Your task to perform on an android device: turn on location history Image 0: 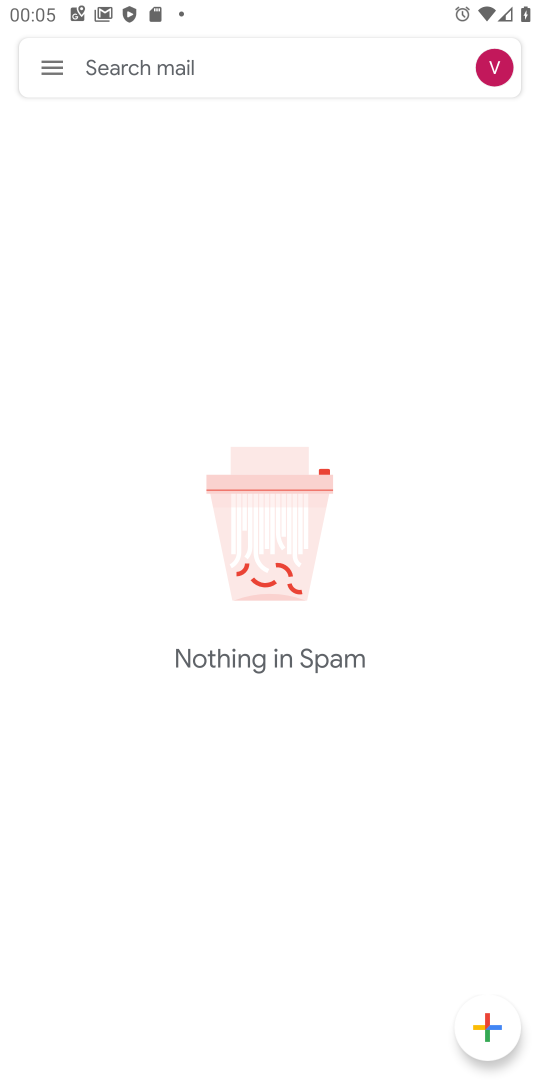
Step 0: press home button
Your task to perform on an android device: turn on location history Image 1: 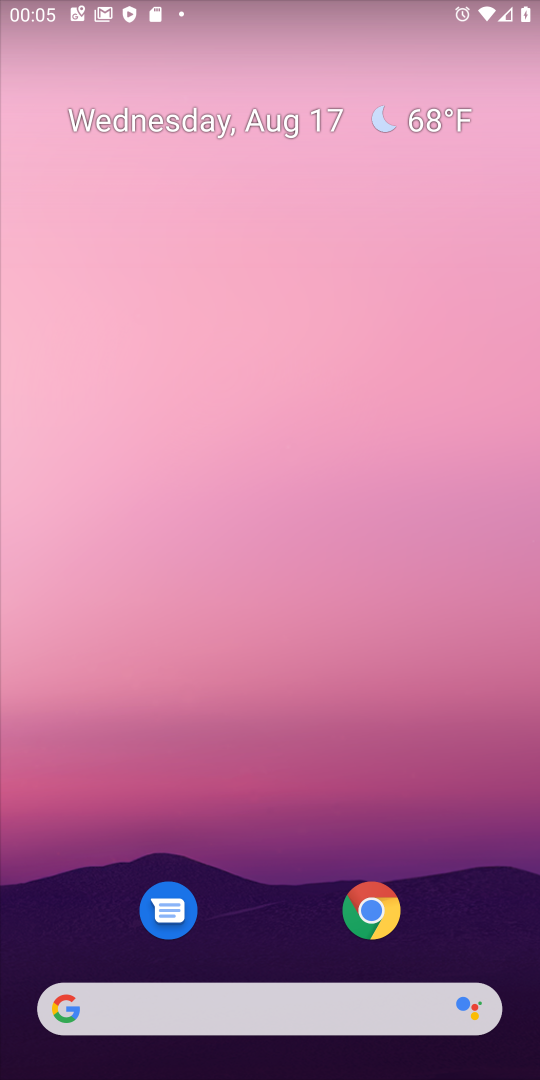
Step 1: drag from (268, 914) to (293, 41)
Your task to perform on an android device: turn on location history Image 2: 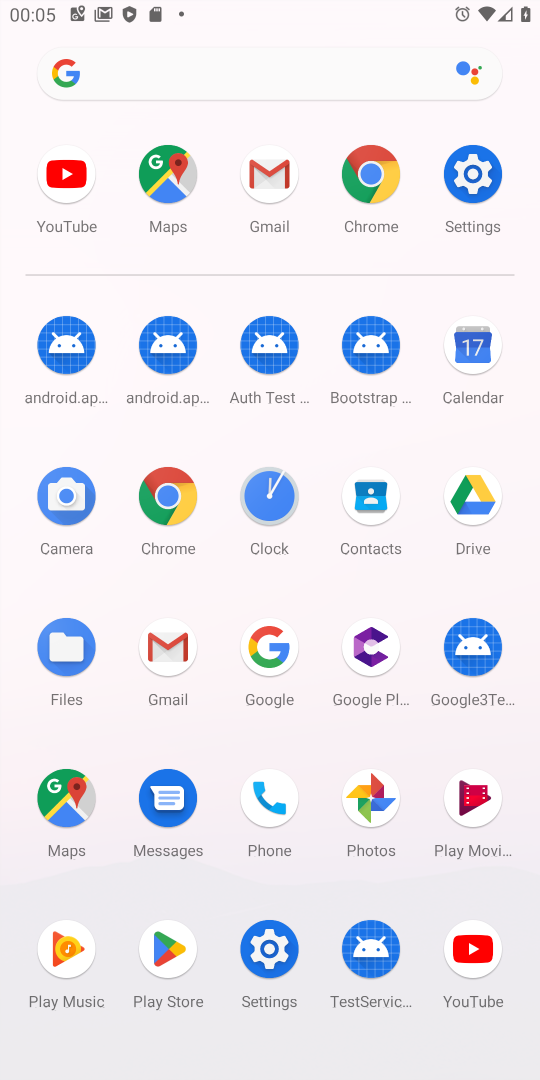
Step 2: click (264, 959)
Your task to perform on an android device: turn on location history Image 3: 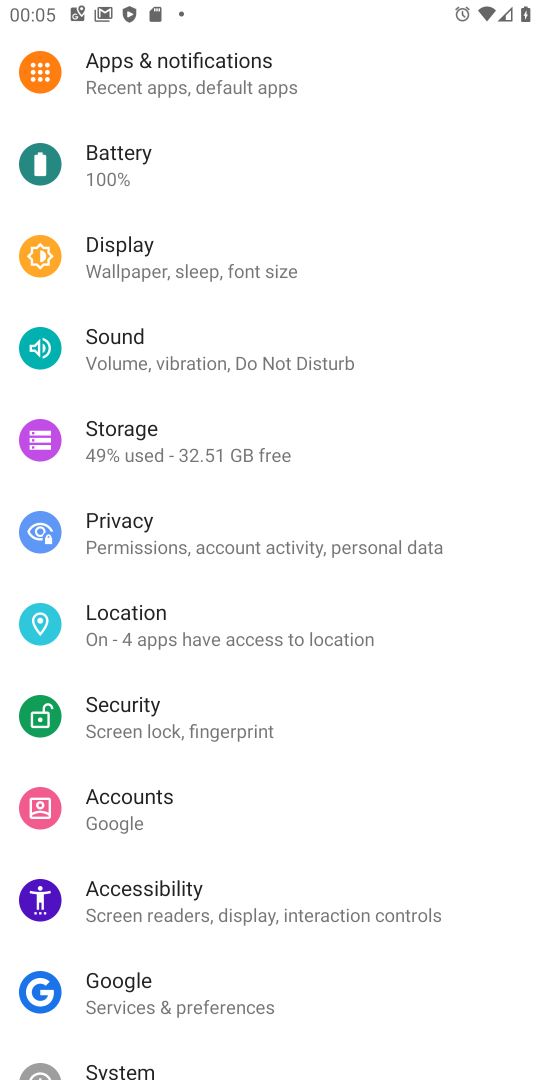
Step 3: click (174, 660)
Your task to perform on an android device: turn on location history Image 4: 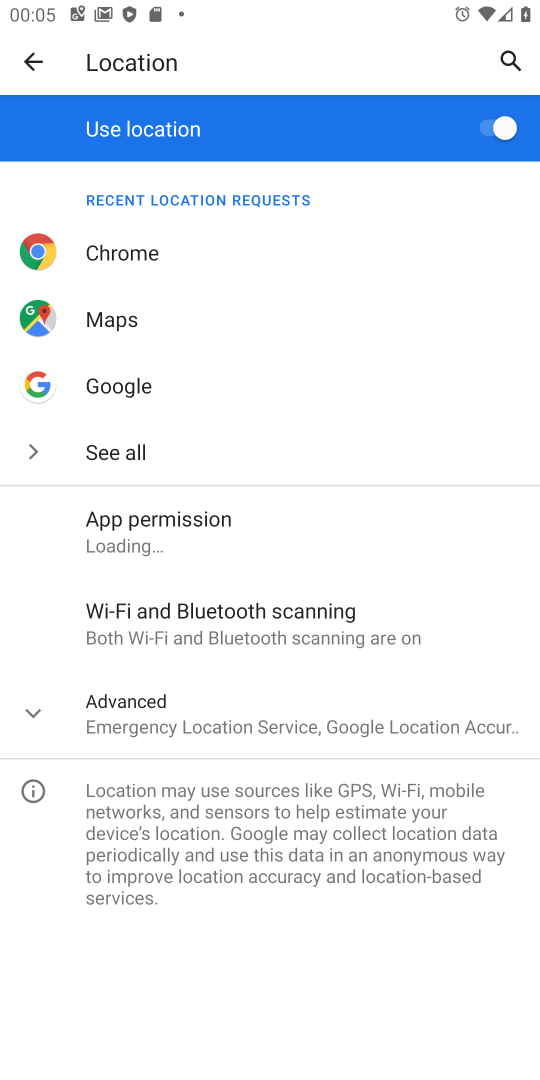
Step 4: click (174, 710)
Your task to perform on an android device: turn on location history Image 5: 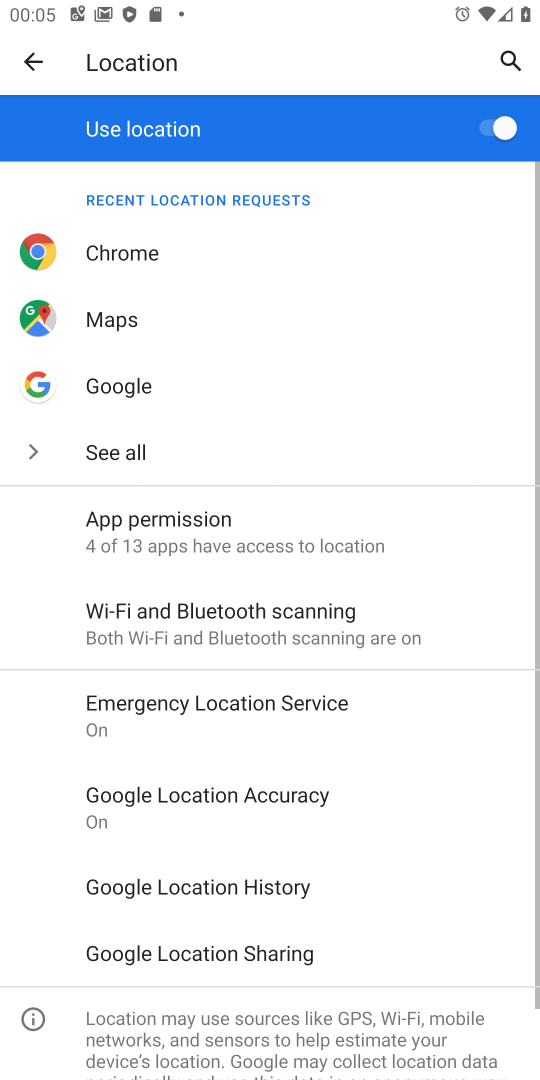
Step 5: click (211, 897)
Your task to perform on an android device: turn on location history Image 6: 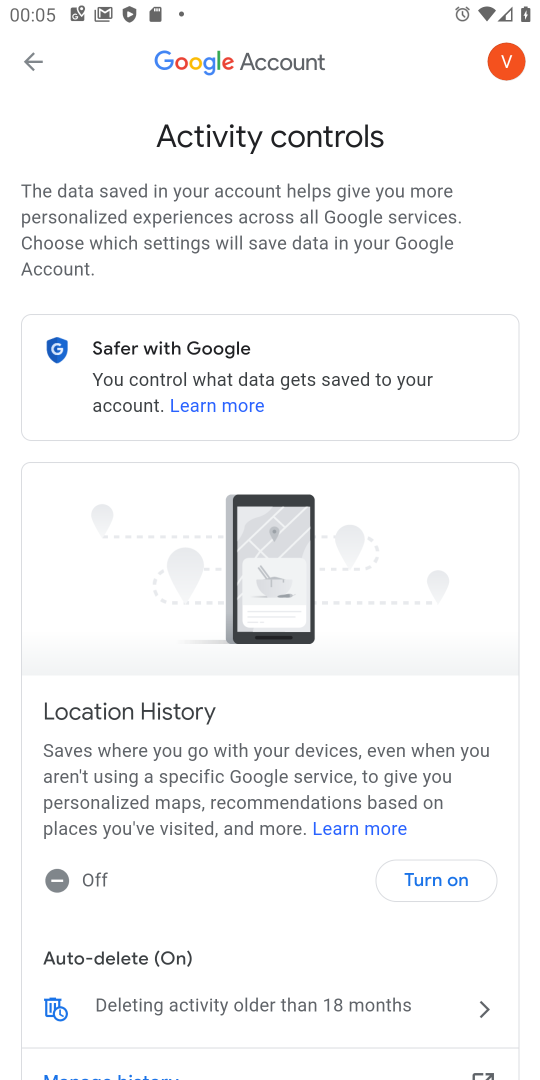
Step 6: click (440, 861)
Your task to perform on an android device: turn on location history Image 7: 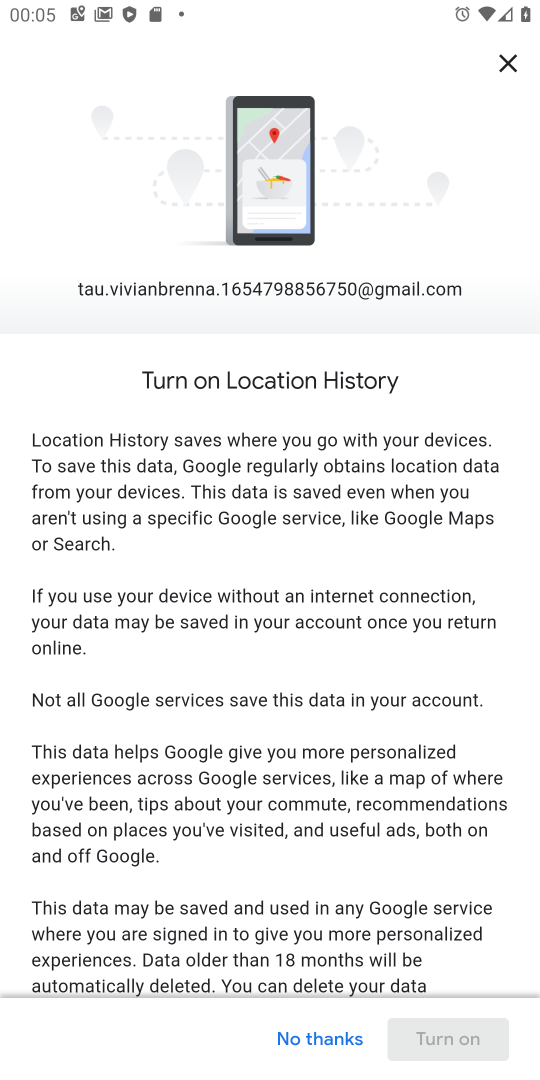
Step 7: drag from (387, 925) to (453, 145)
Your task to perform on an android device: turn on location history Image 8: 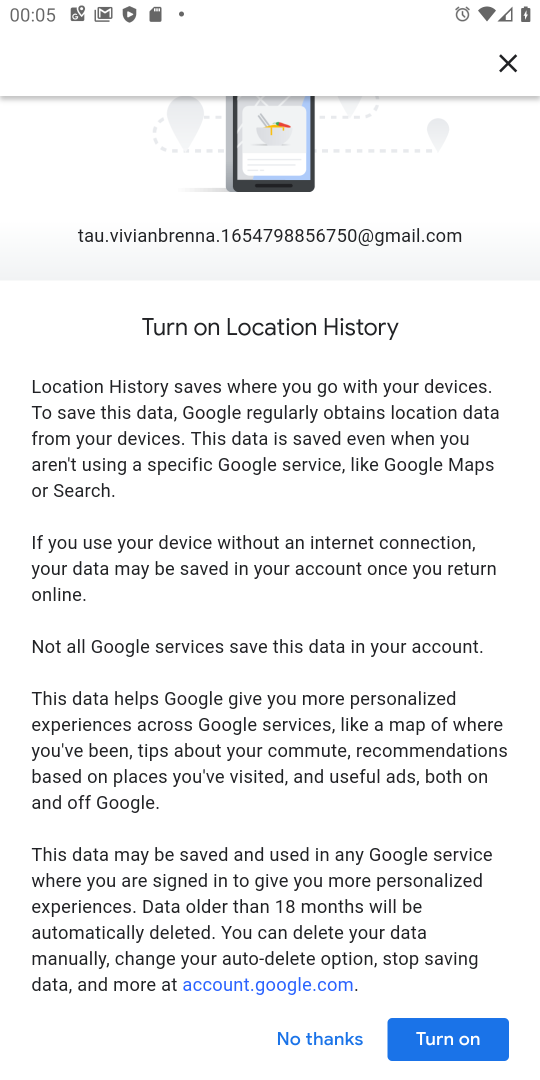
Step 8: click (470, 1049)
Your task to perform on an android device: turn on location history Image 9: 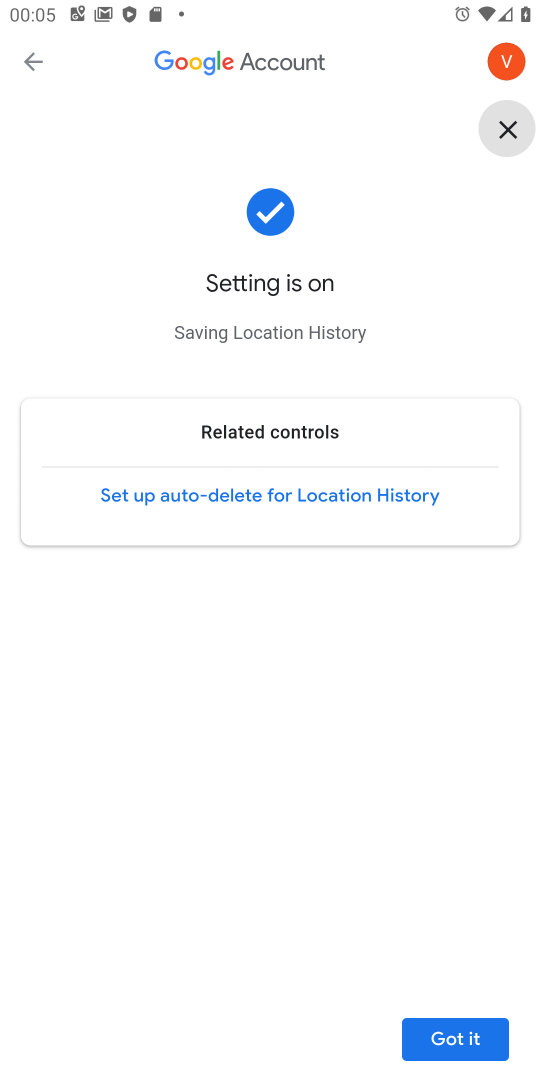
Step 9: task complete